Your task to perform on an android device: Search for Mexican restaurants on Maps Image 0: 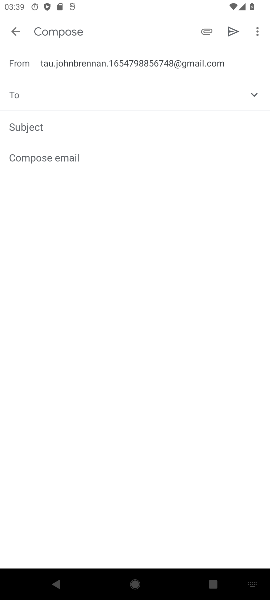
Step 0: press home button
Your task to perform on an android device: Search for Mexican restaurants on Maps Image 1: 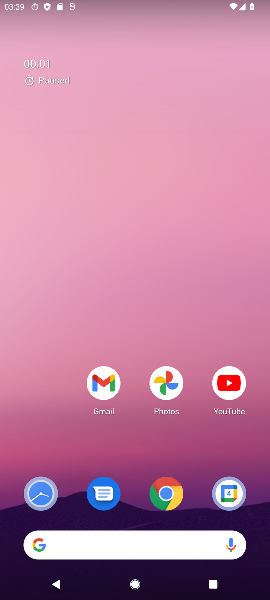
Step 1: drag from (87, 398) to (213, 70)
Your task to perform on an android device: Search for Mexican restaurants on Maps Image 2: 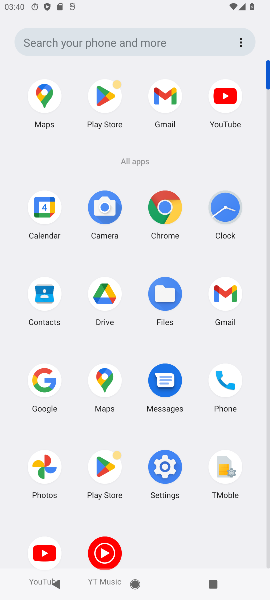
Step 2: click (99, 379)
Your task to perform on an android device: Search for Mexican restaurants on Maps Image 3: 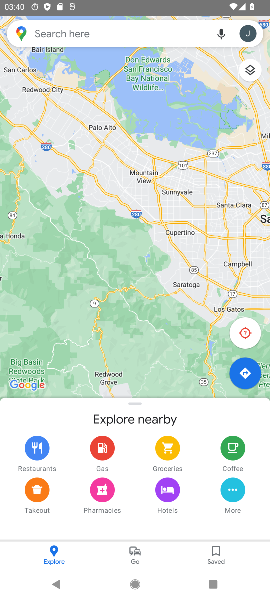
Step 3: click (64, 28)
Your task to perform on an android device: Search for Mexican restaurants on Maps Image 4: 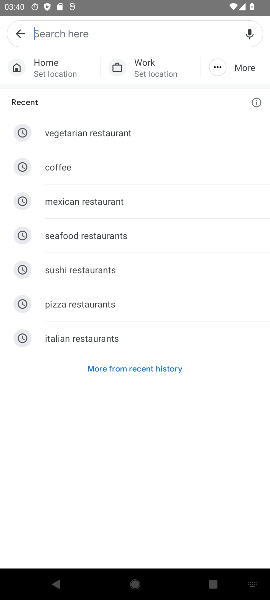
Step 4: type "Mexican restaurants "
Your task to perform on an android device: Search for Mexican restaurants on Maps Image 5: 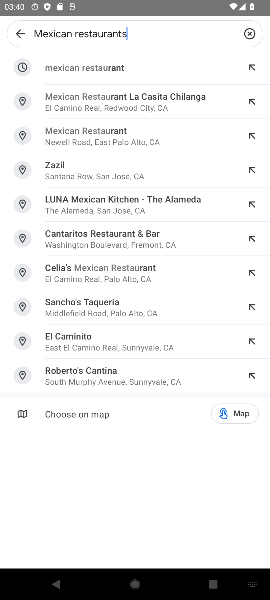
Step 5: type ""
Your task to perform on an android device: Search for Mexican restaurants on Maps Image 6: 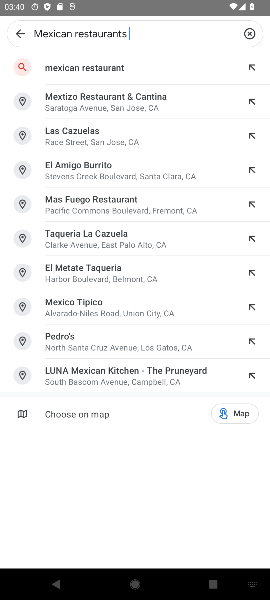
Step 6: click (84, 71)
Your task to perform on an android device: Search for Mexican restaurants on Maps Image 7: 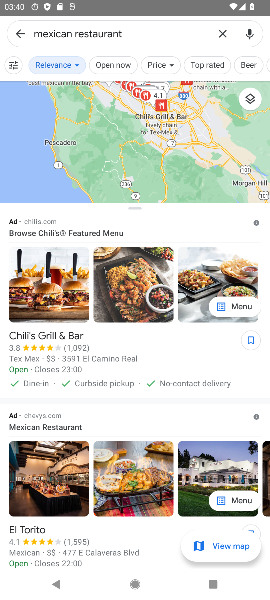
Step 7: task complete